Your task to perform on an android device: change text size in settings app Image 0: 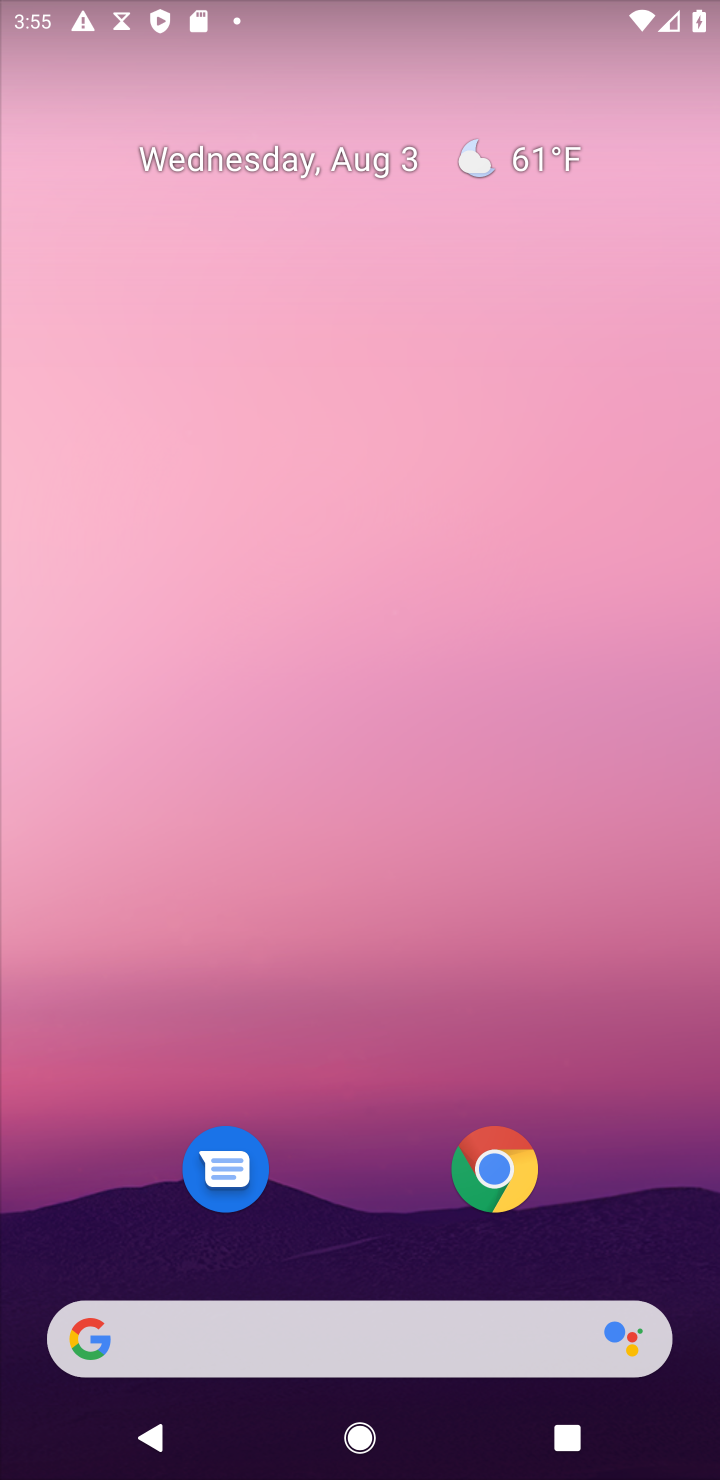
Step 0: press home button
Your task to perform on an android device: change text size in settings app Image 1: 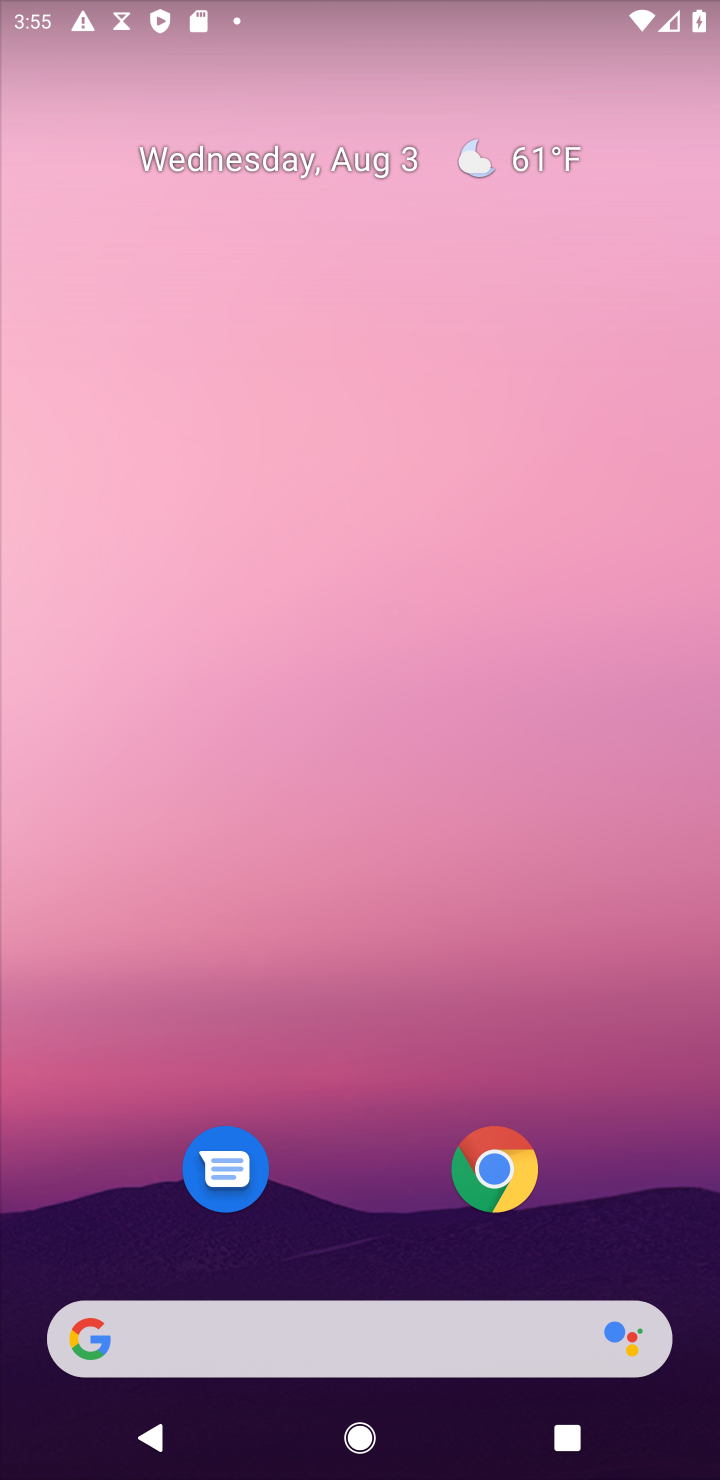
Step 1: drag from (302, 1267) to (466, 5)
Your task to perform on an android device: change text size in settings app Image 2: 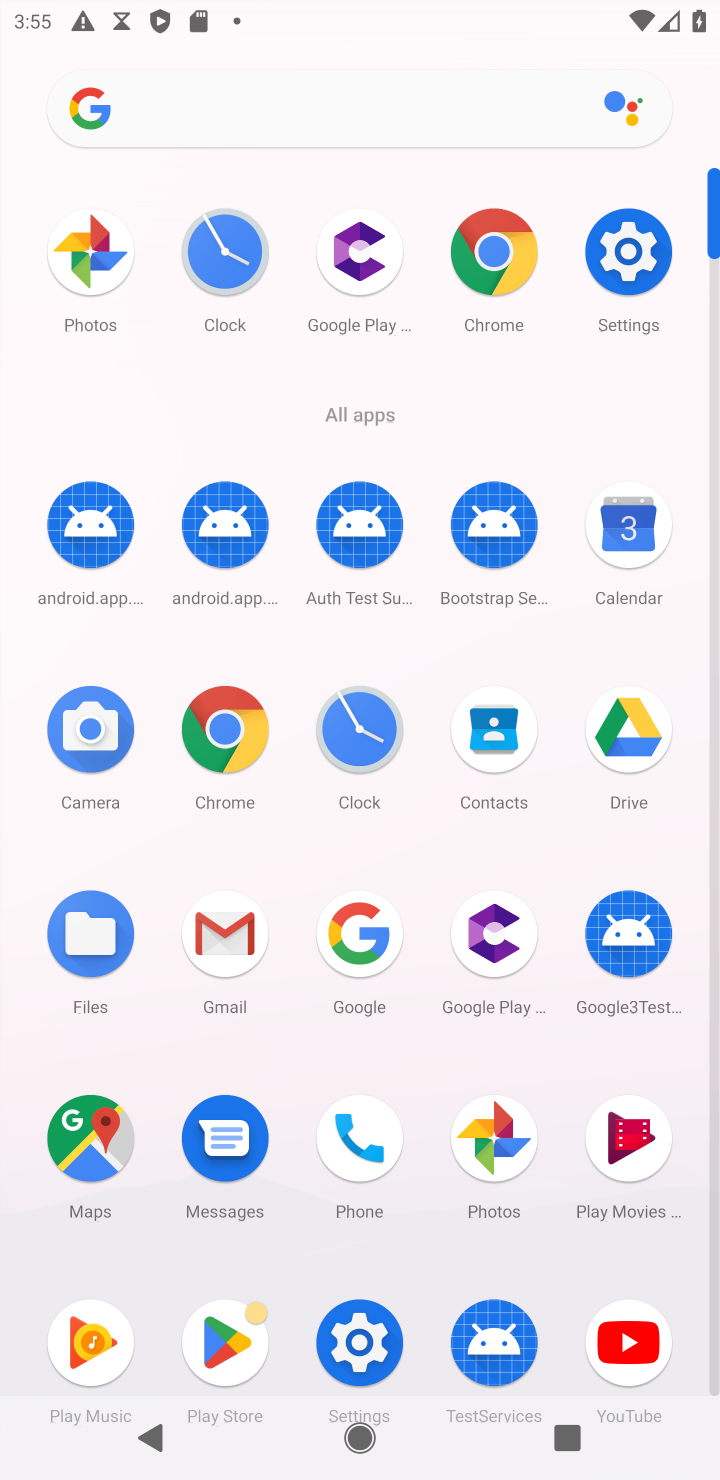
Step 2: click (363, 1308)
Your task to perform on an android device: change text size in settings app Image 3: 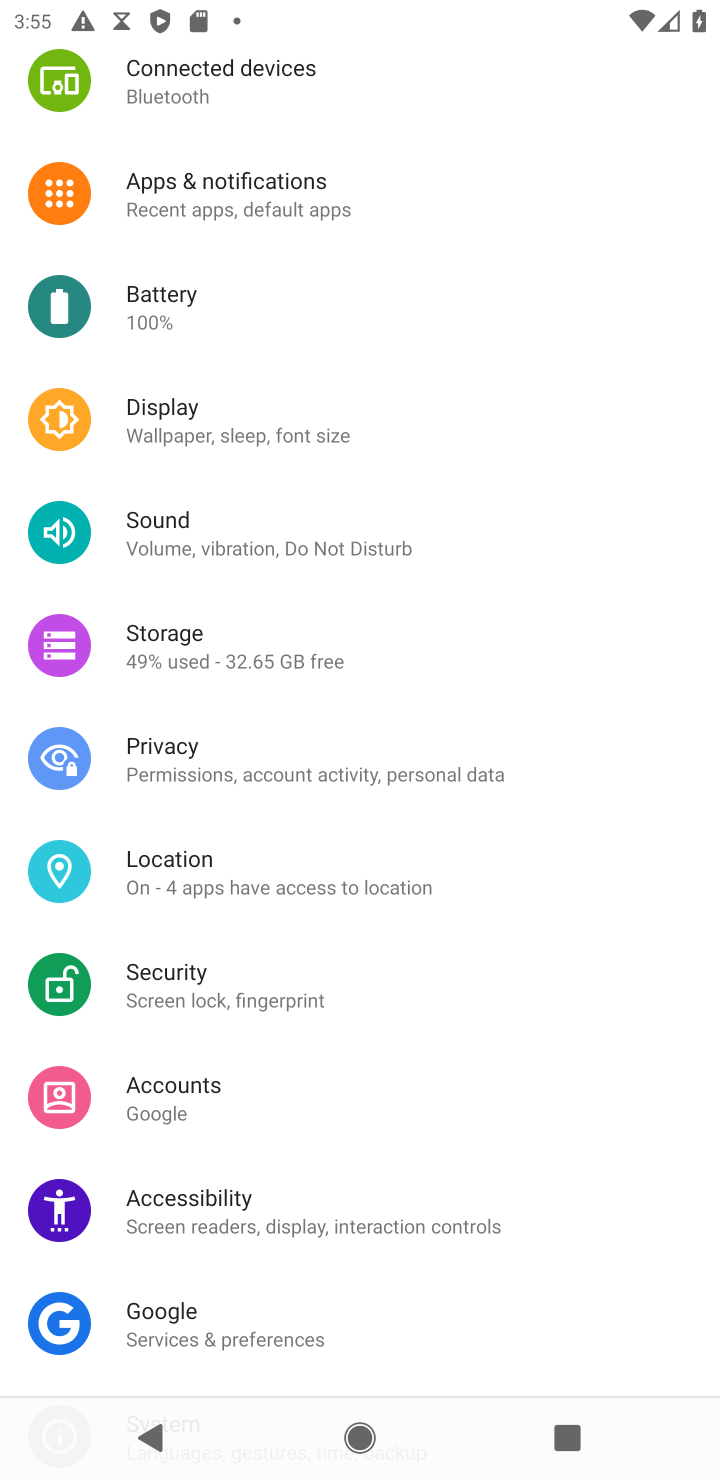
Step 3: click (369, 1328)
Your task to perform on an android device: change text size in settings app Image 4: 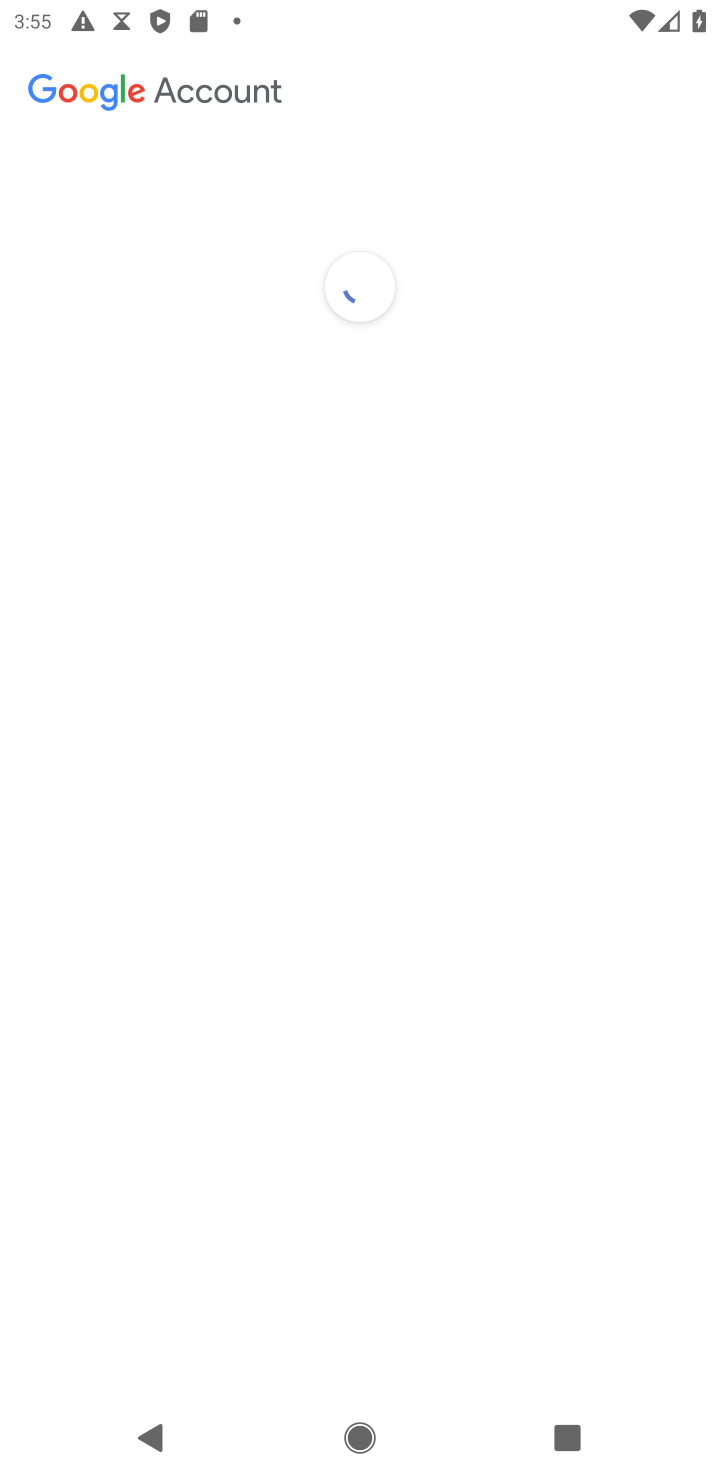
Step 4: click (167, 433)
Your task to perform on an android device: change text size in settings app Image 5: 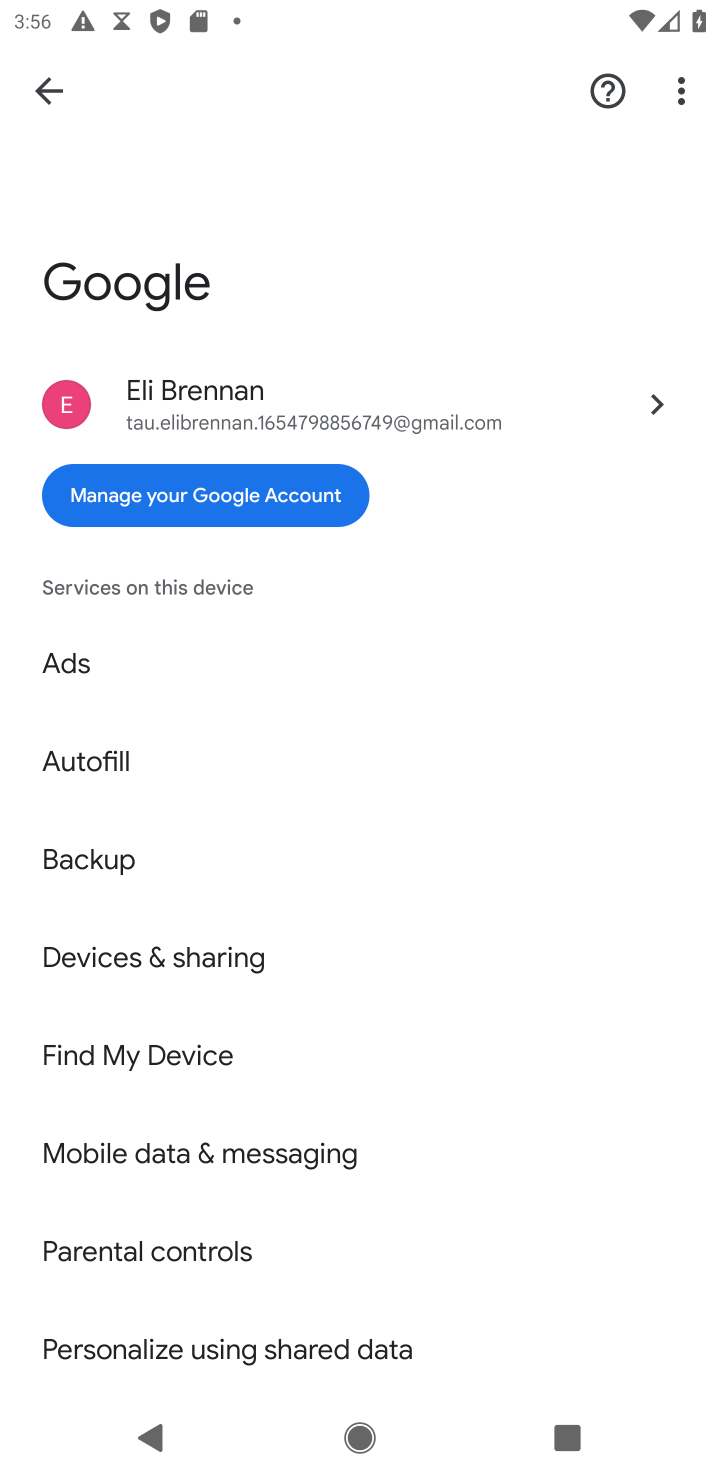
Step 5: press home button
Your task to perform on an android device: change text size in settings app Image 6: 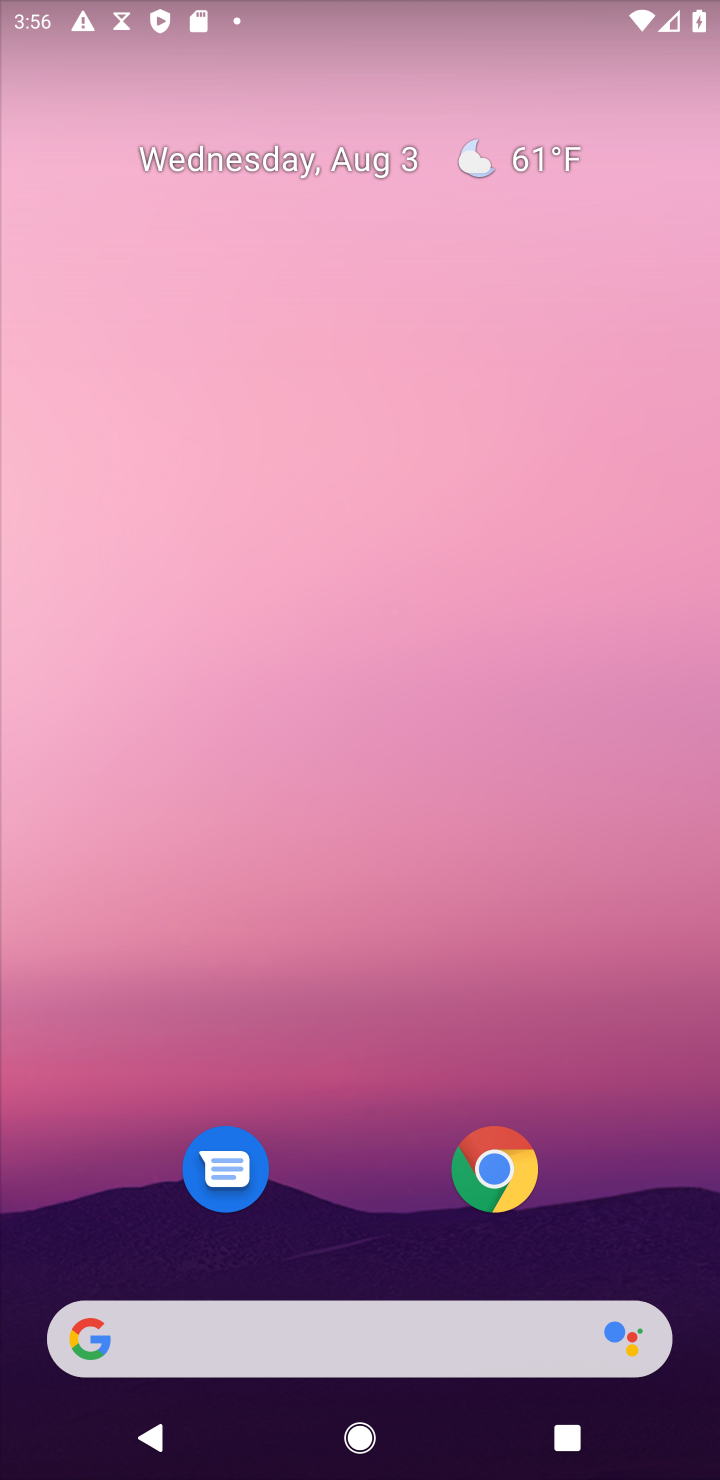
Step 6: drag from (352, 1069) to (331, 191)
Your task to perform on an android device: change text size in settings app Image 7: 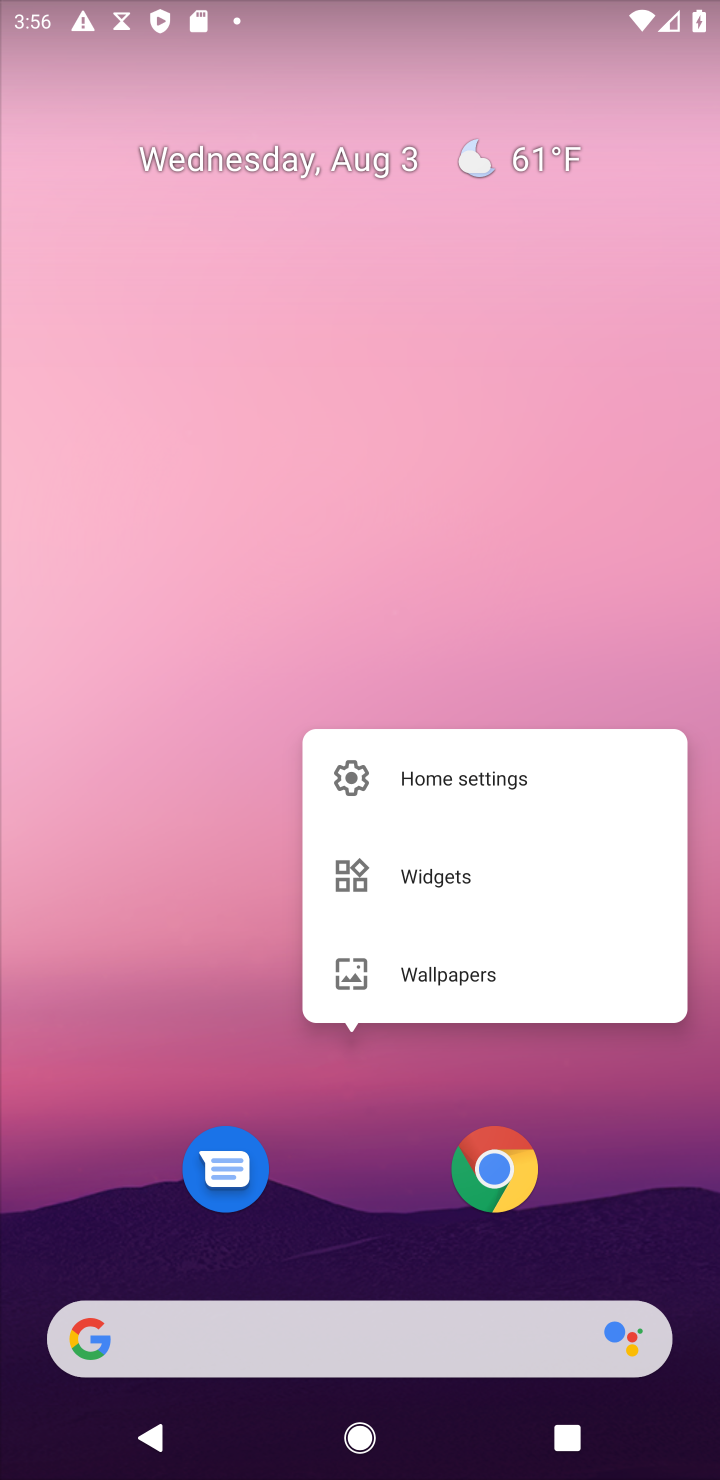
Step 7: click (352, 1165)
Your task to perform on an android device: change text size in settings app Image 8: 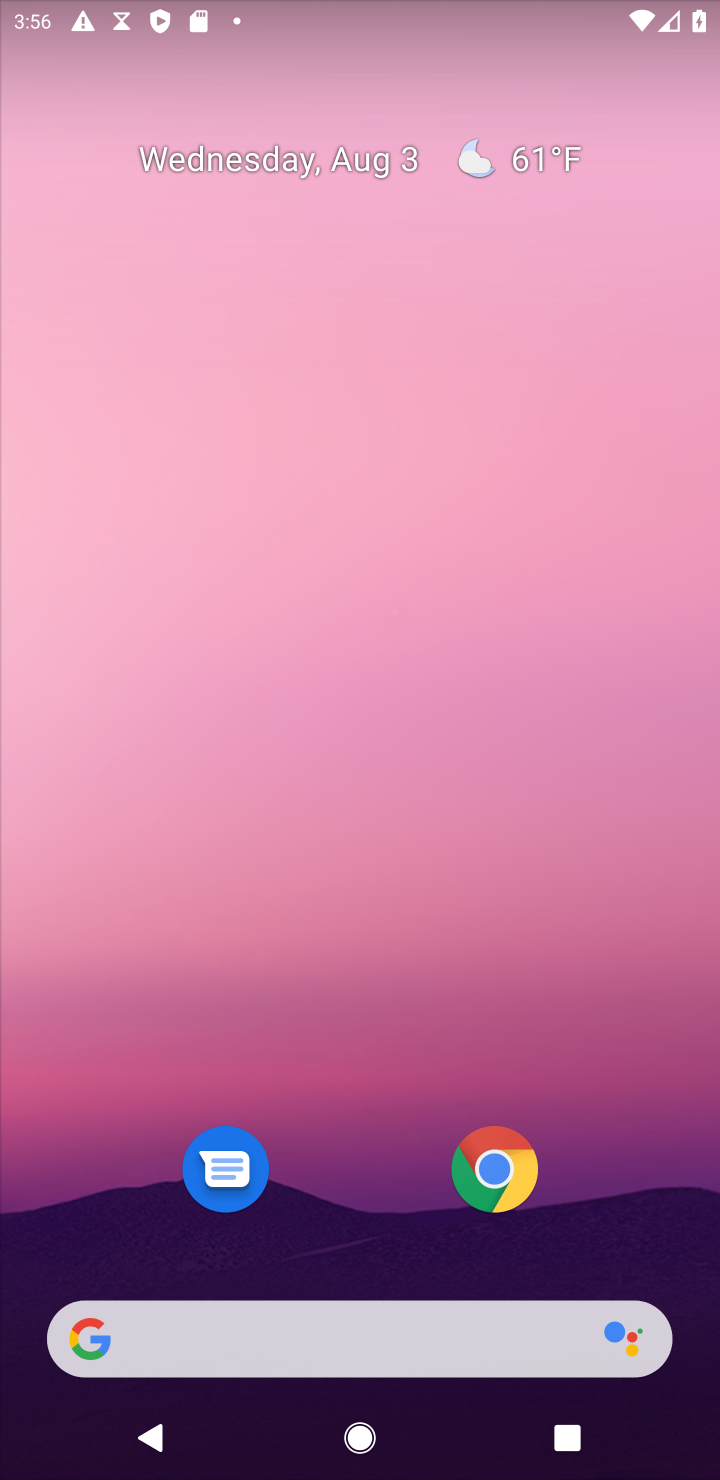
Step 8: drag from (331, 870) to (369, 345)
Your task to perform on an android device: change text size in settings app Image 9: 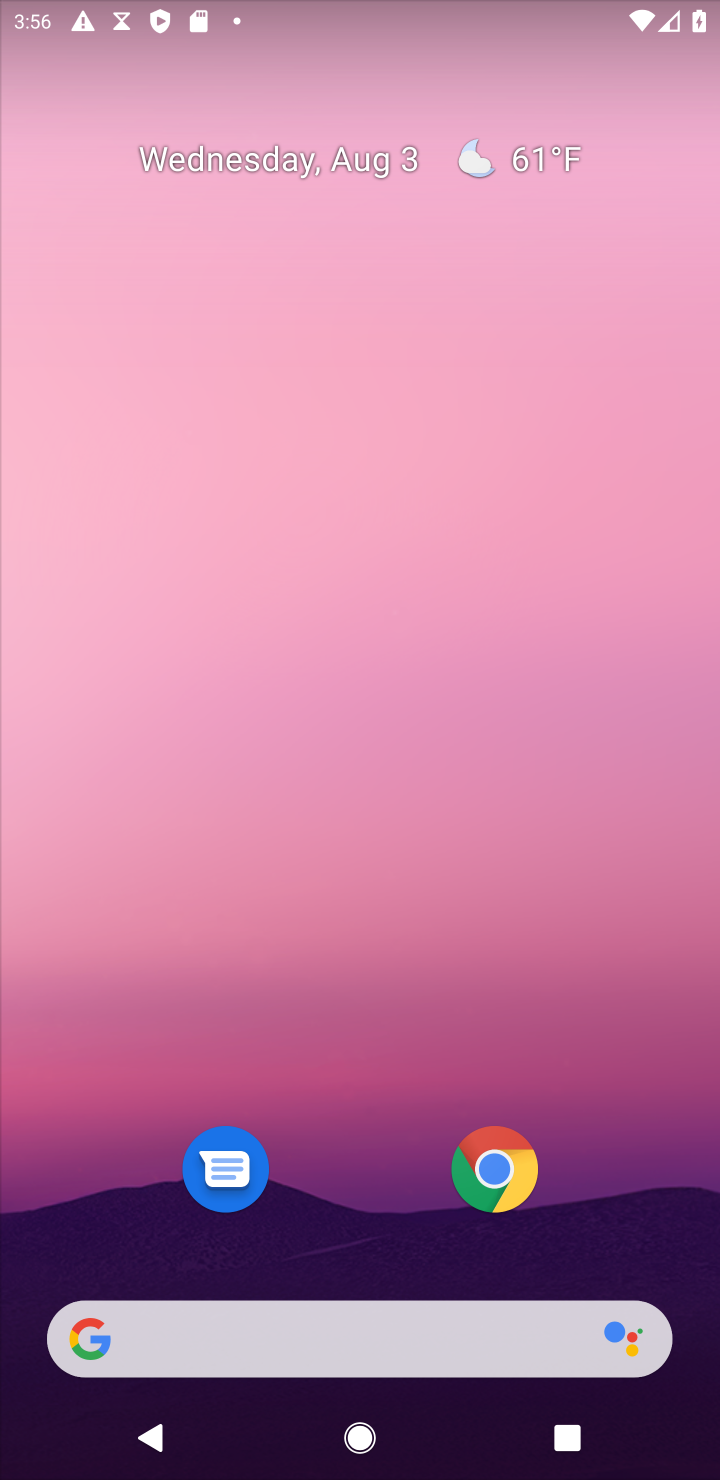
Step 9: drag from (373, 1223) to (330, 308)
Your task to perform on an android device: change text size in settings app Image 10: 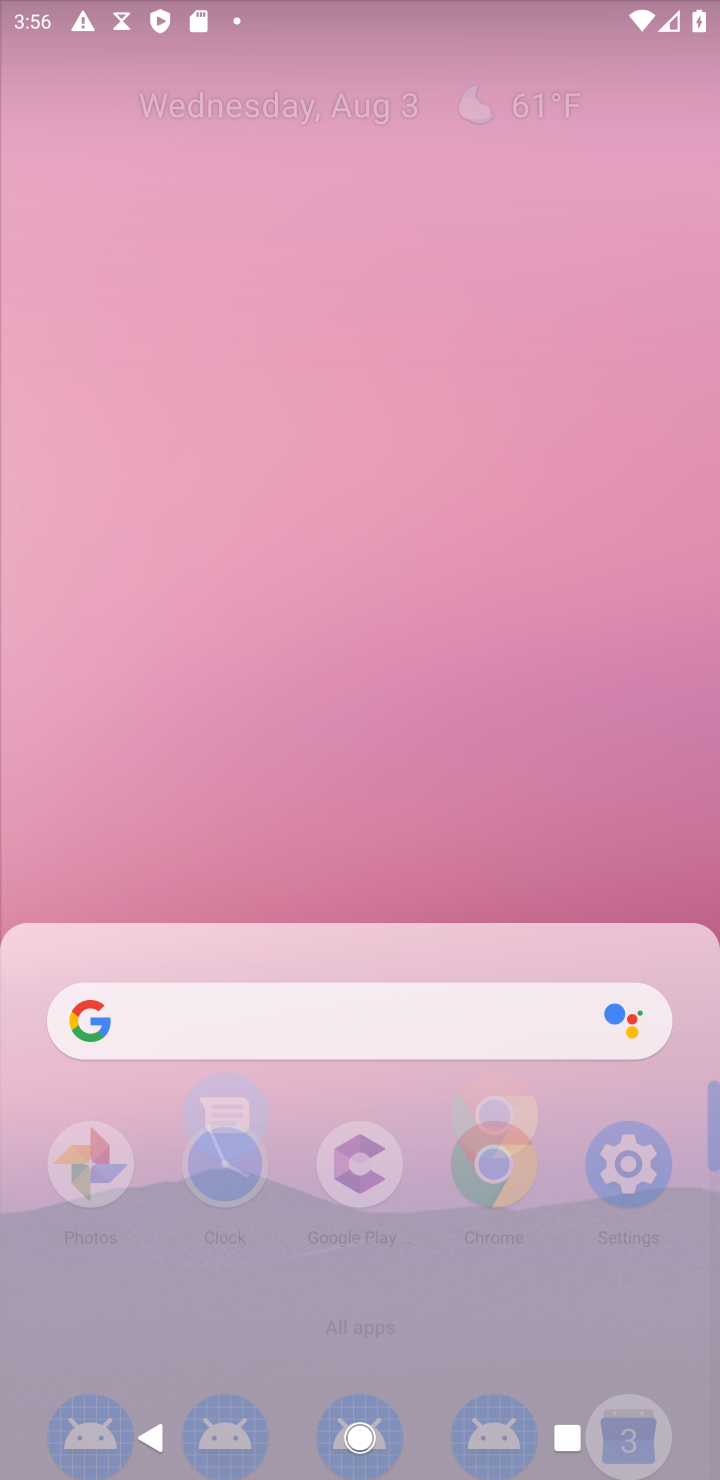
Step 10: click (387, 9)
Your task to perform on an android device: change text size in settings app Image 11: 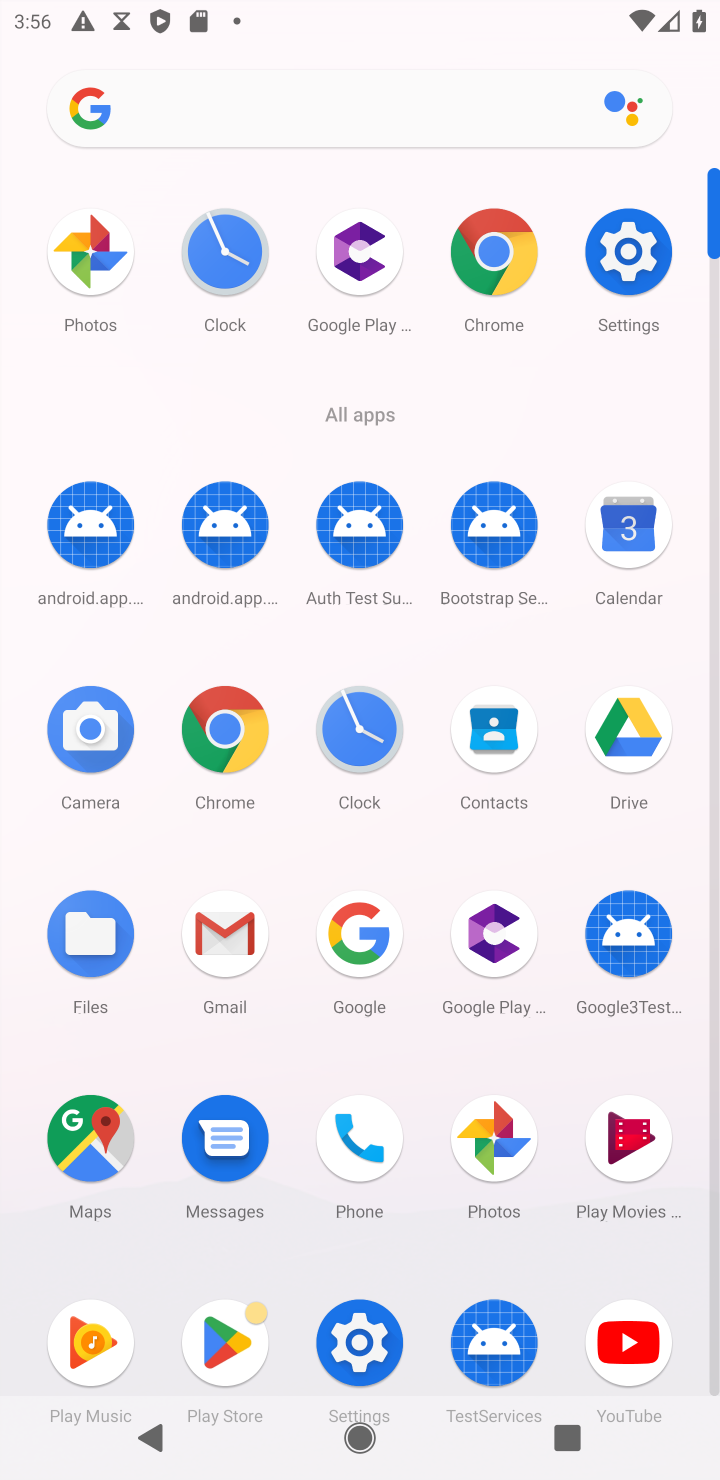
Step 11: click (611, 277)
Your task to perform on an android device: change text size in settings app Image 12: 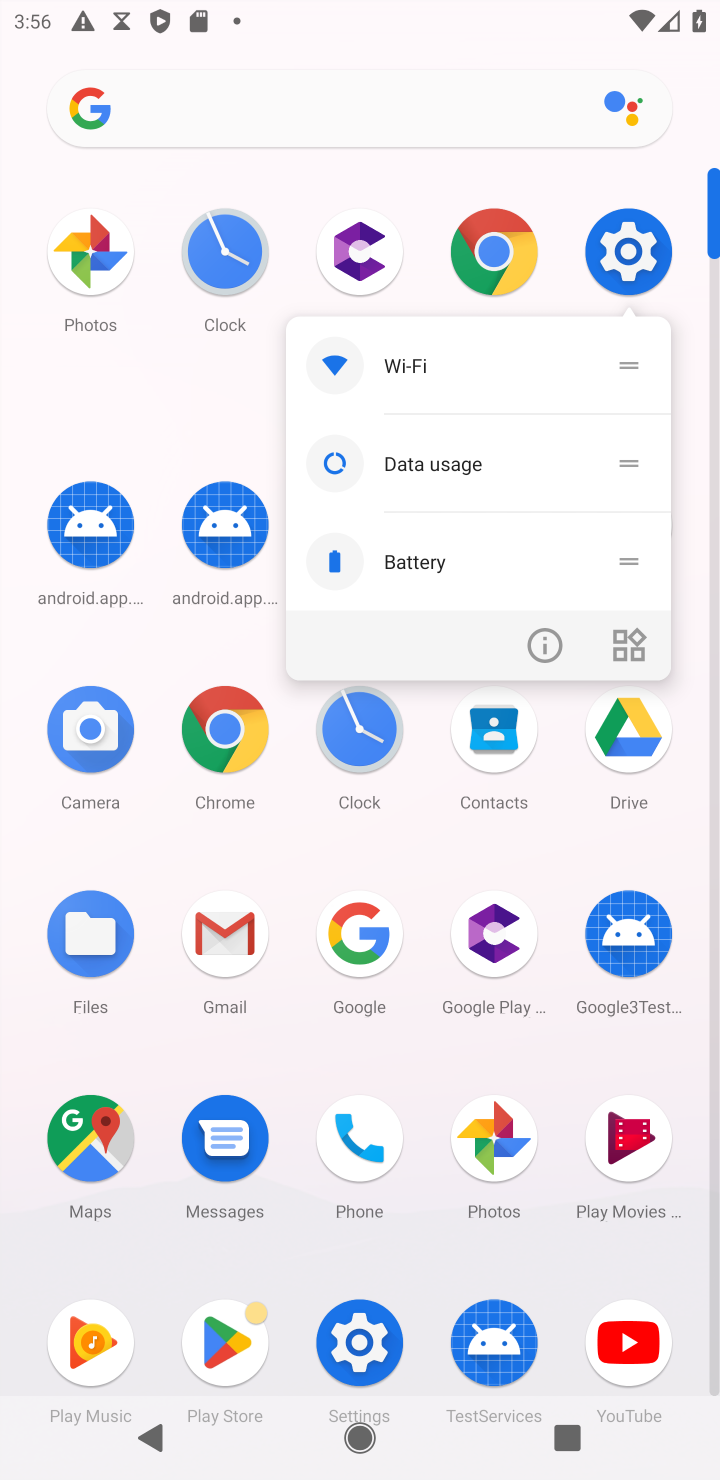
Step 12: click (638, 244)
Your task to perform on an android device: change text size in settings app Image 13: 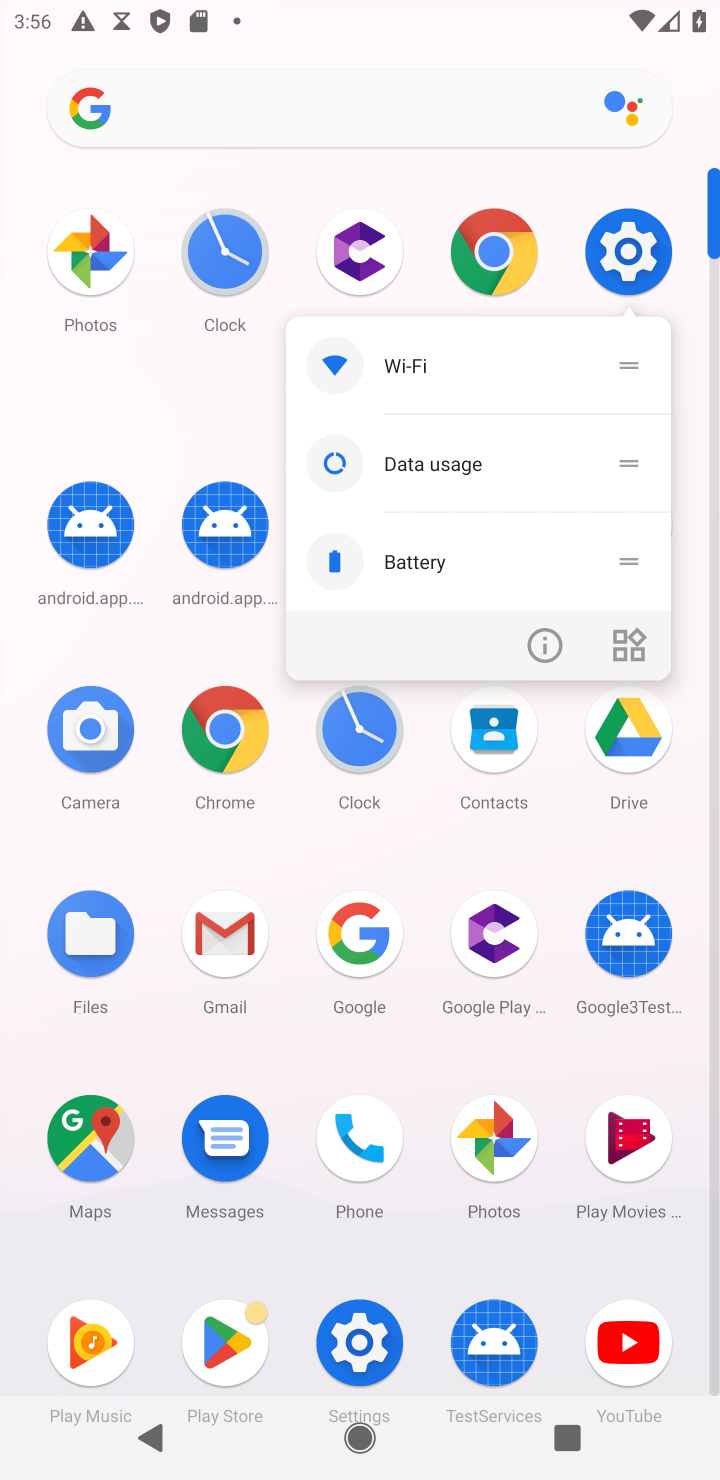
Step 13: click (642, 246)
Your task to perform on an android device: change text size in settings app Image 14: 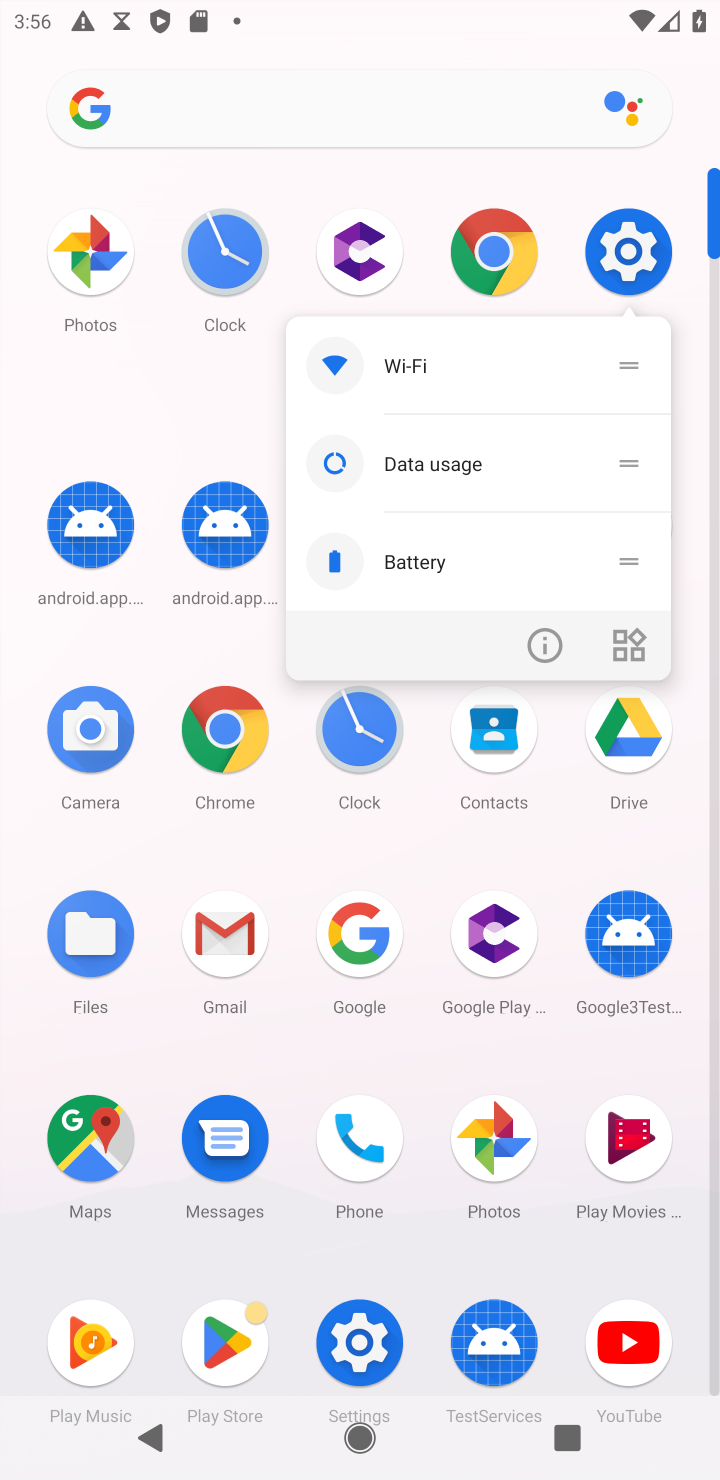
Step 14: click (633, 275)
Your task to perform on an android device: change text size in settings app Image 15: 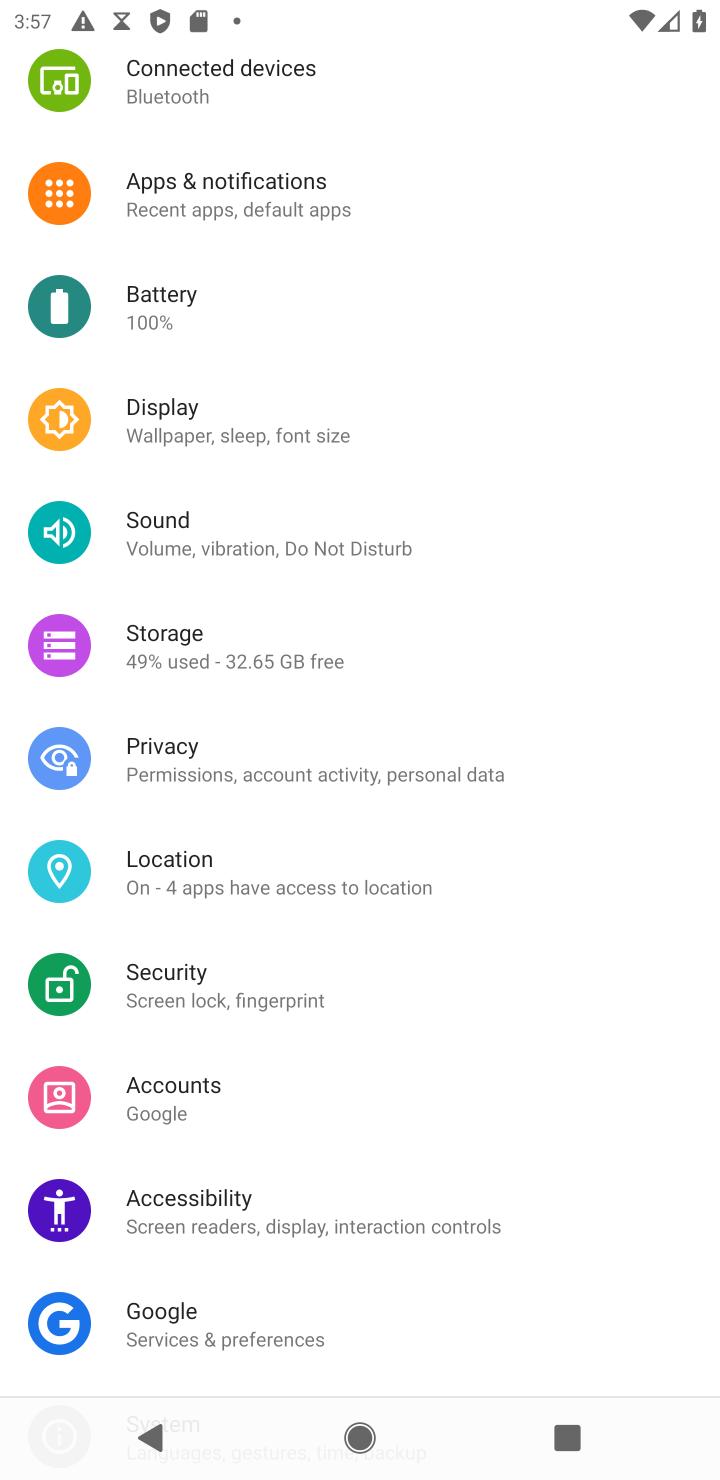
Step 15: click (180, 427)
Your task to perform on an android device: change text size in settings app Image 16: 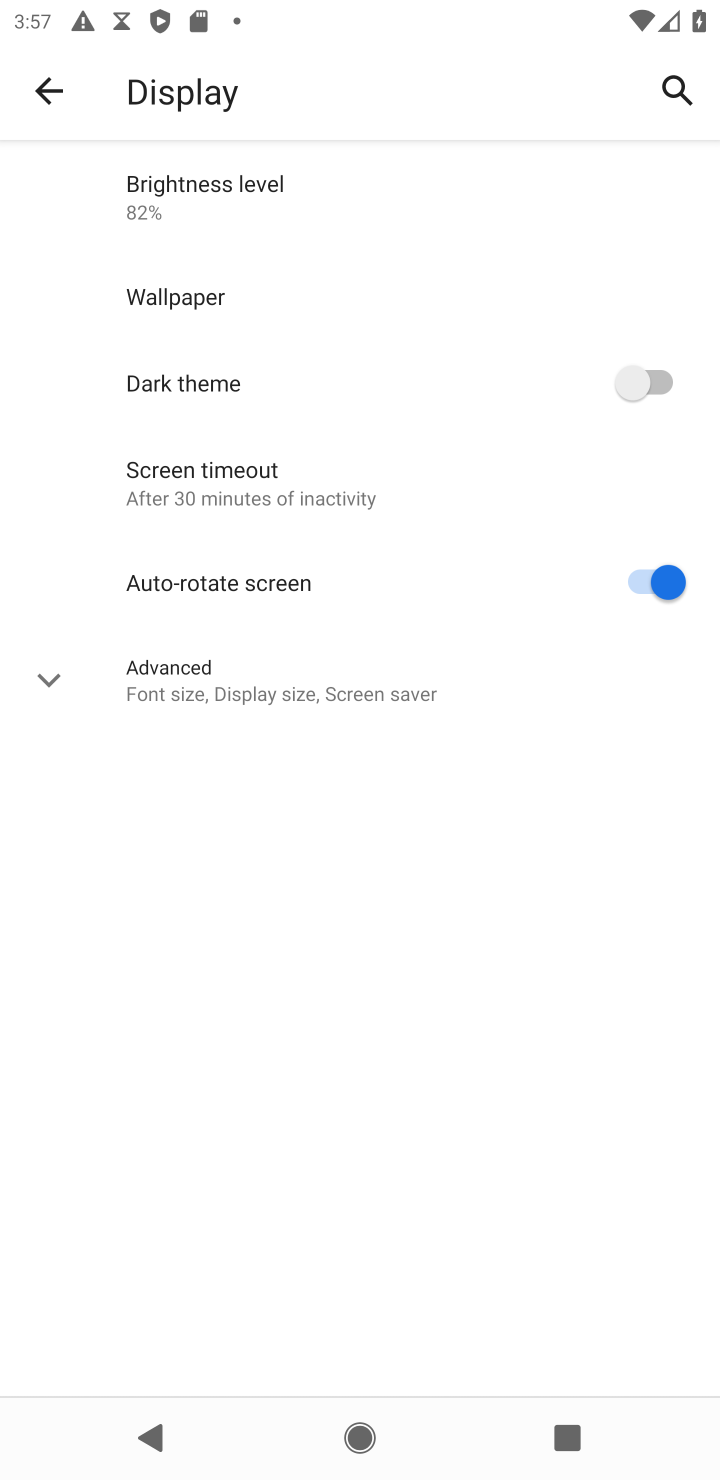
Step 16: click (233, 693)
Your task to perform on an android device: change text size in settings app Image 17: 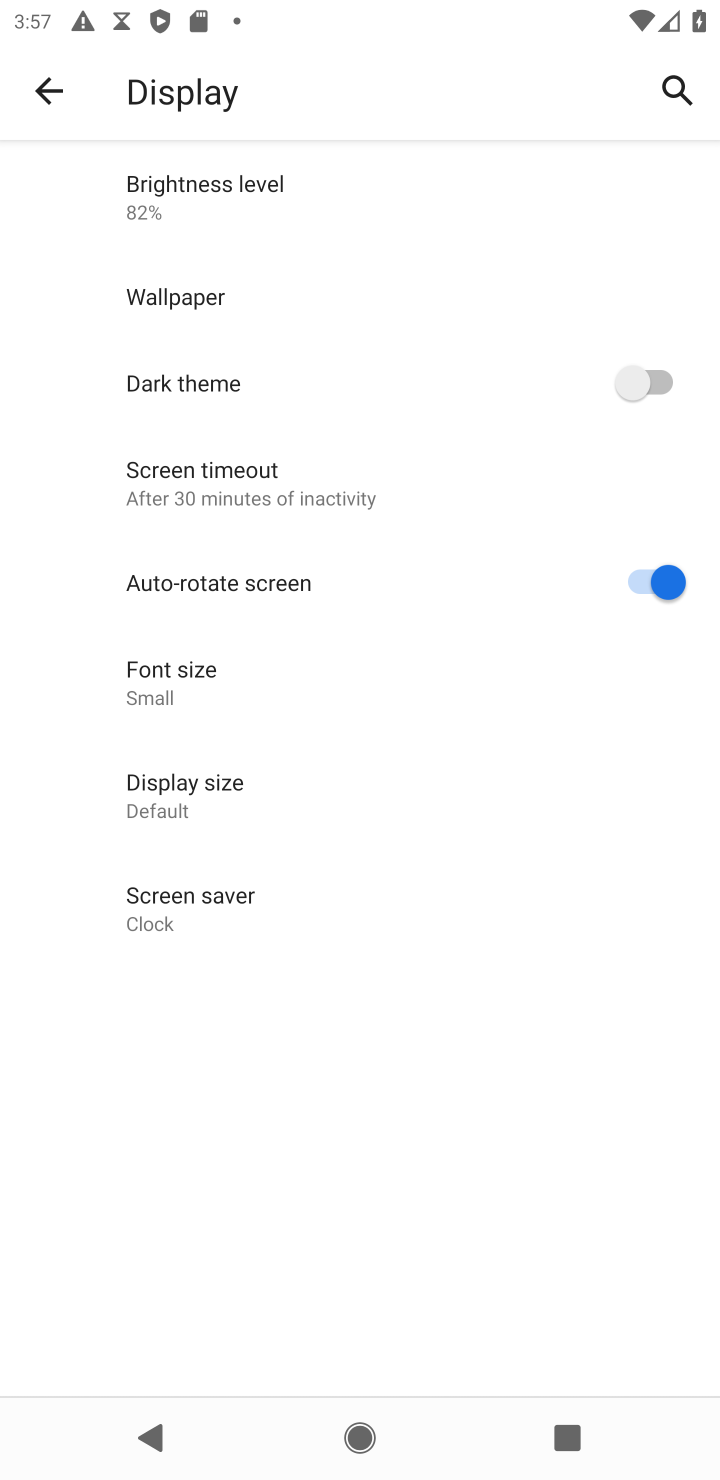
Step 17: click (168, 692)
Your task to perform on an android device: change text size in settings app Image 18: 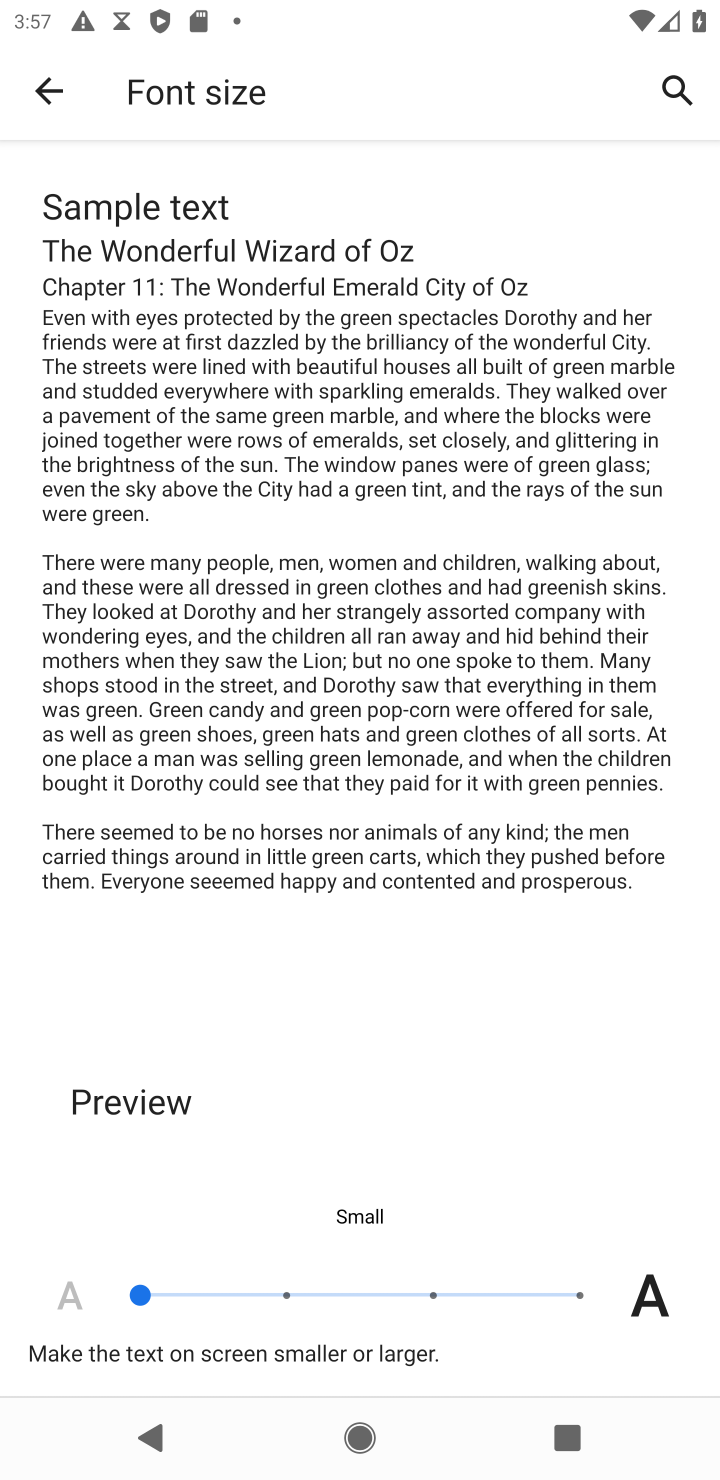
Step 18: click (167, 703)
Your task to perform on an android device: change text size in settings app Image 19: 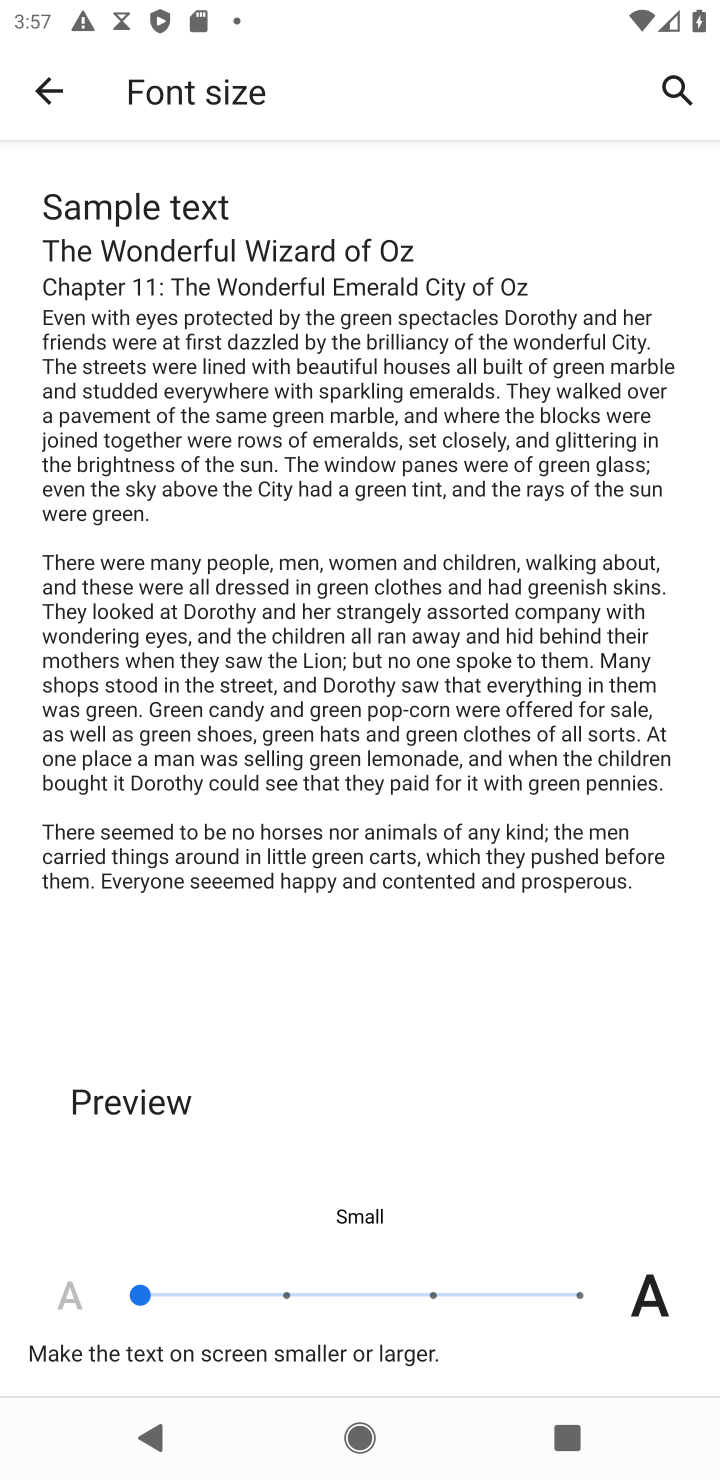
Step 19: click (411, 1286)
Your task to perform on an android device: change text size in settings app Image 20: 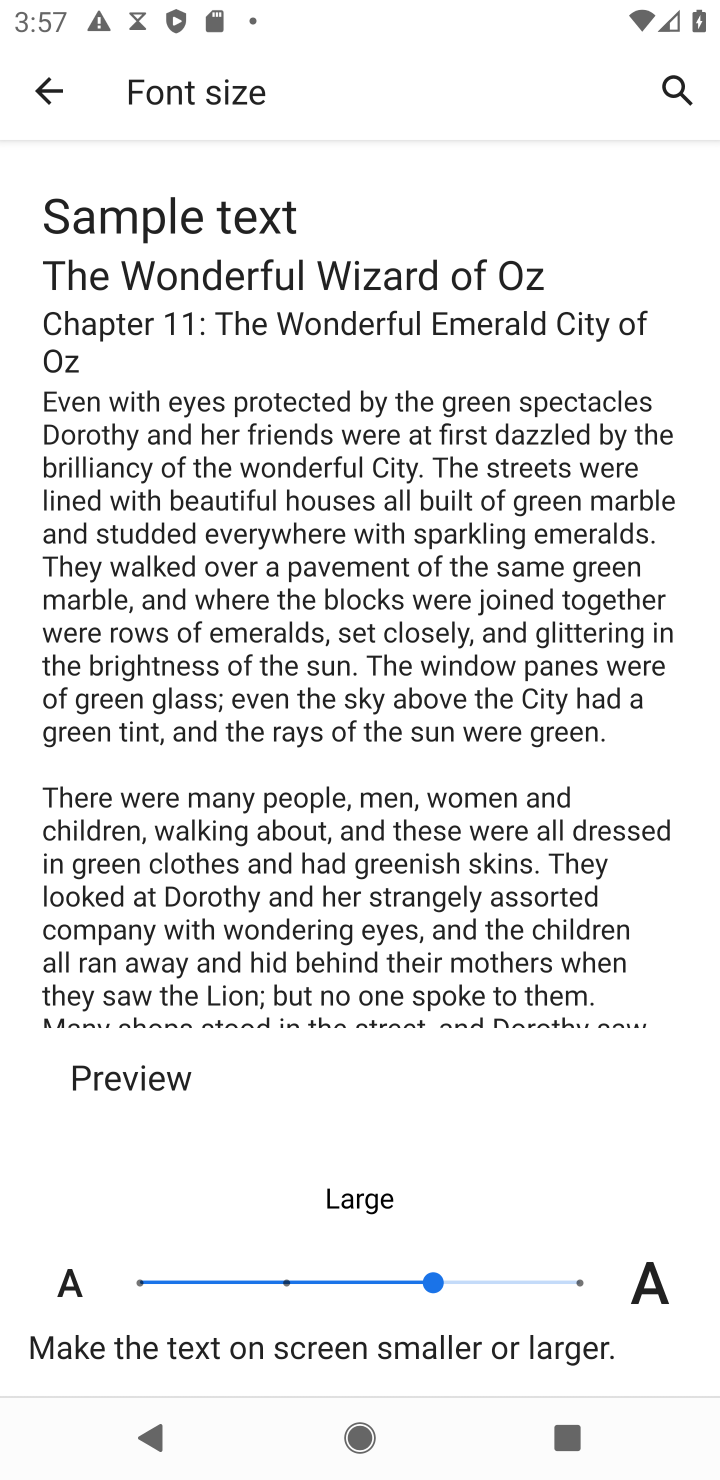
Step 20: task complete